Your task to perform on an android device: turn on bluetooth scan Image 0: 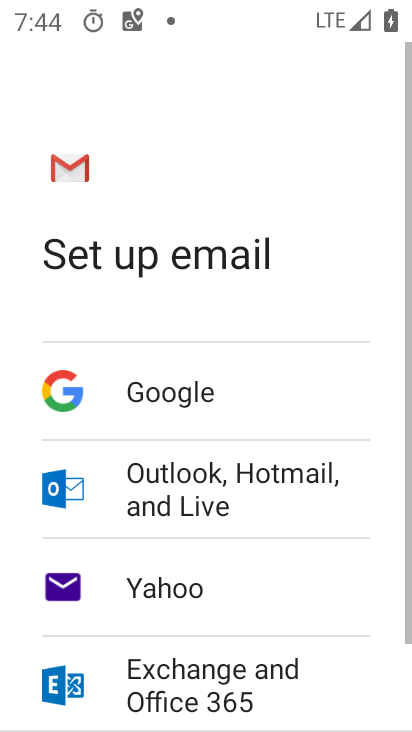
Step 0: press home button
Your task to perform on an android device: turn on bluetooth scan Image 1: 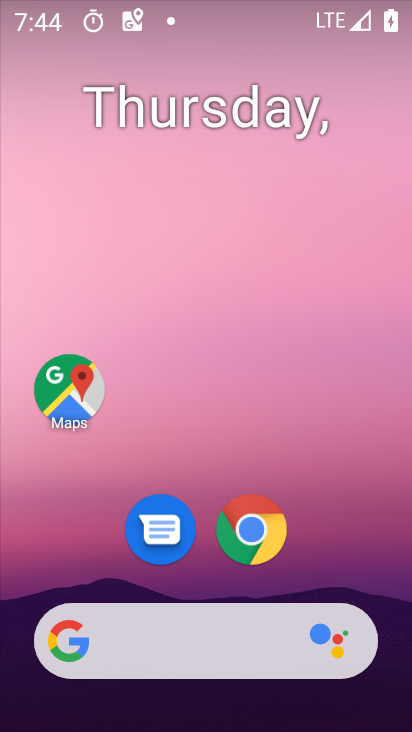
Step 1: drag from (372, 571) to (373, 136)
Your task to perform on an android device: turn on bluetooth scan Image 2: 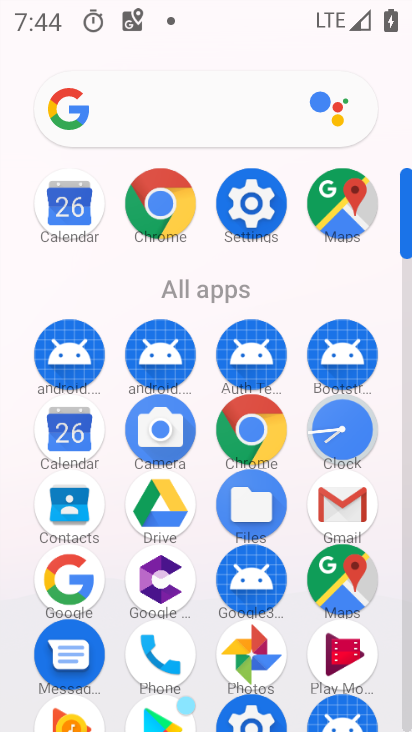
Step 2: click (257, 222)
Your task to perform on an android device: turn on bluetooth scan Image 3: 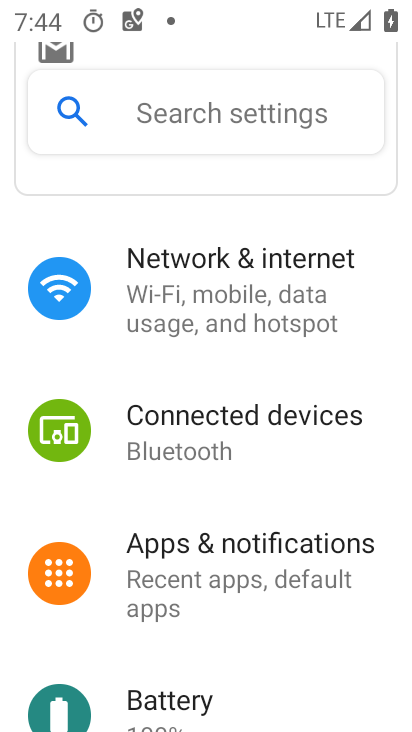
Step 3: drag from (307, 468) to (339, 308)
Your task to perform on an android device: turn on bluetooth scan Image 4: 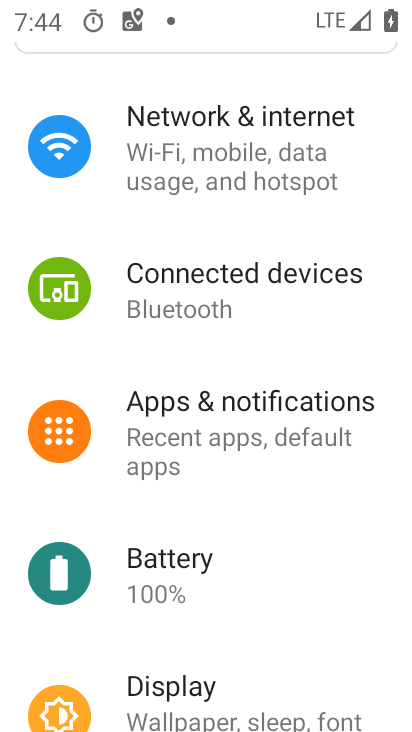
Step 4: drag from (343, 418) to (354, 274)
Your task to perform on an android device: turn on bluetooth scan Image 5: 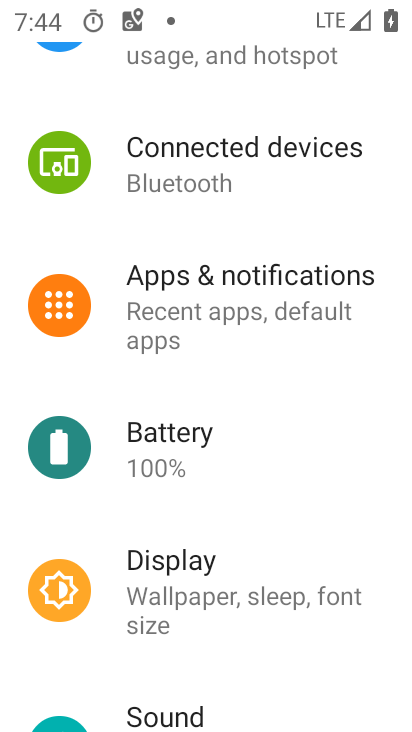
Step 5: drag from (341, 475) to (333, 258)
Your task to perform on an android device: turn on bluetooth scan Image 6: 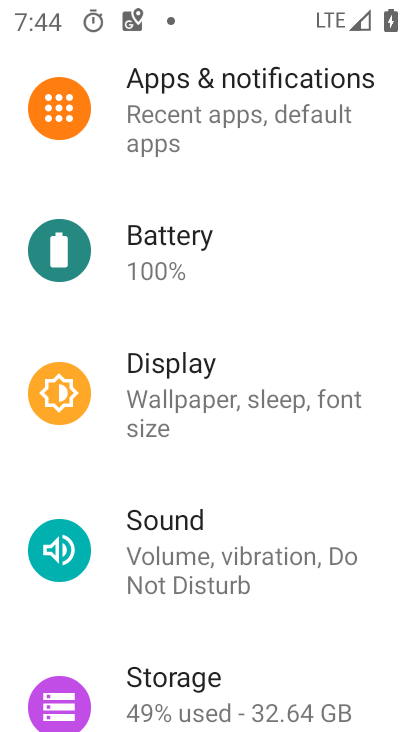
Step 6: drag from (339, 553) to (344, 419)
Your task to perform on an android device: turn on bluetooth scan Image 7: 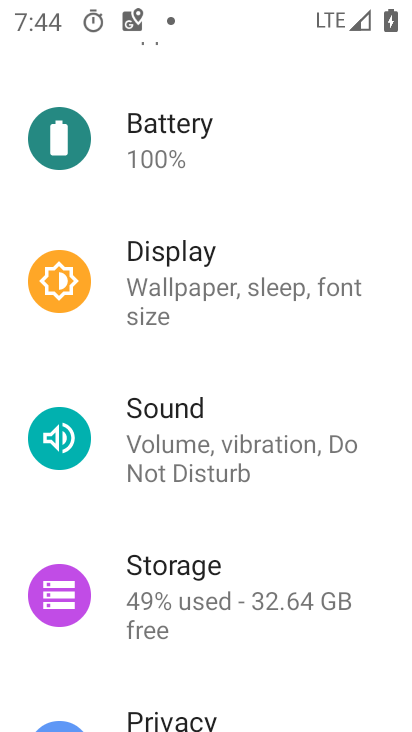
Step 7: drag from (341, 631) to (353, 415)
Your task to perform on an android device: turn on bluetooth scan Image 8: 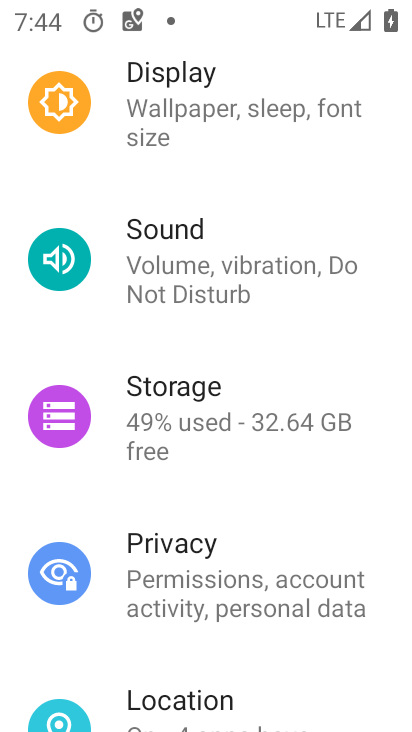
Step 8: drag from (368, 508) to (375, 373)
Your task to perform on an android device: turn on bluetooth scan Image 9: 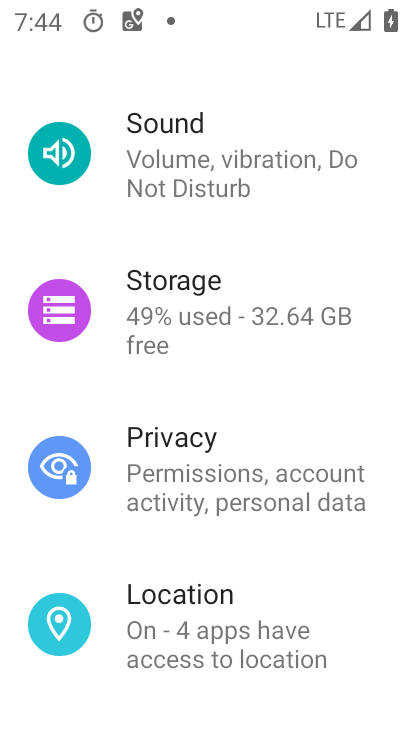
Step 9: drag from (371, 552) to (370, 377)
Your task to perform on an android device: turn on bluetooth scan Image 10: 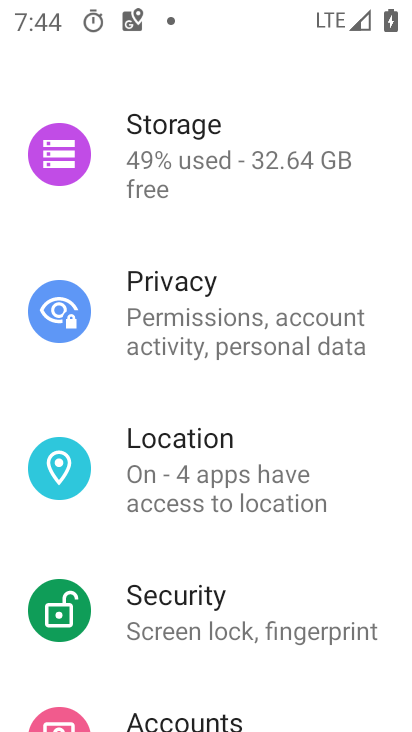
Step 10: drag from (361, 569) to (368, 398)
Your task to perform on an android device: turn on bluetooth scan Image 11: 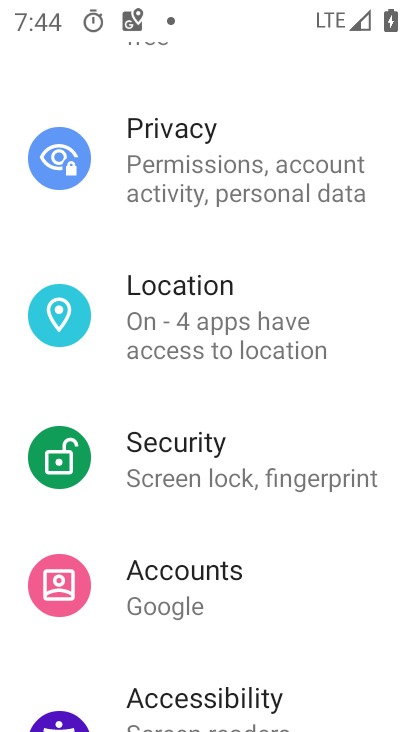
Step 11: click (269, 341)
Your task to perform on an android device: turn on bluetooth scan Image 12: 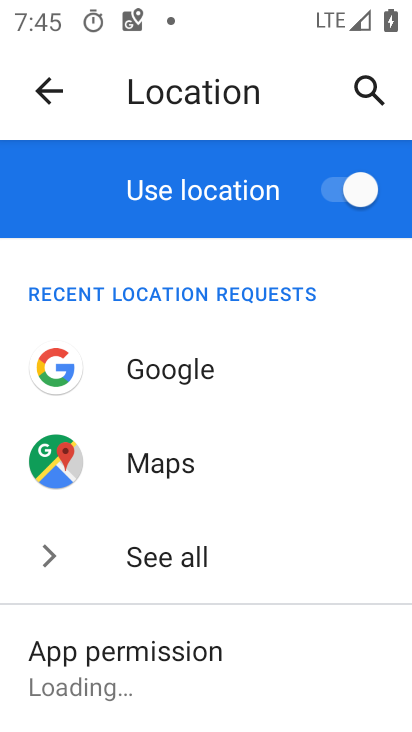
Step 12: drag from (291, 545) to (297, 411)
Your task to perform on an android device: turn on bluetooth scan Image 13: 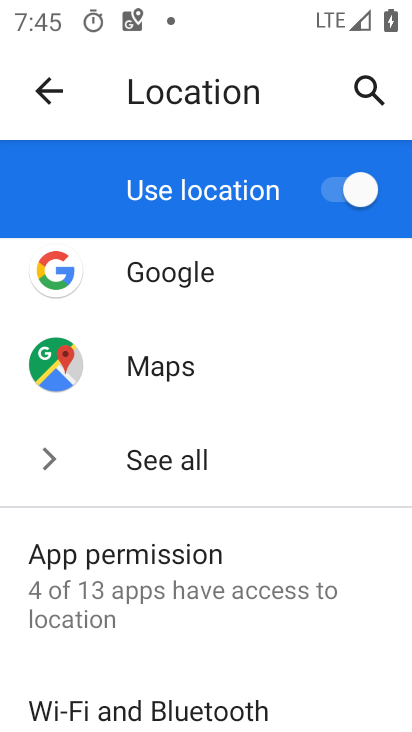
Step 13: drag from (313, 611) to (321, 463)
Your task to perform on an android device: turn on bluetooth scan Image 14: 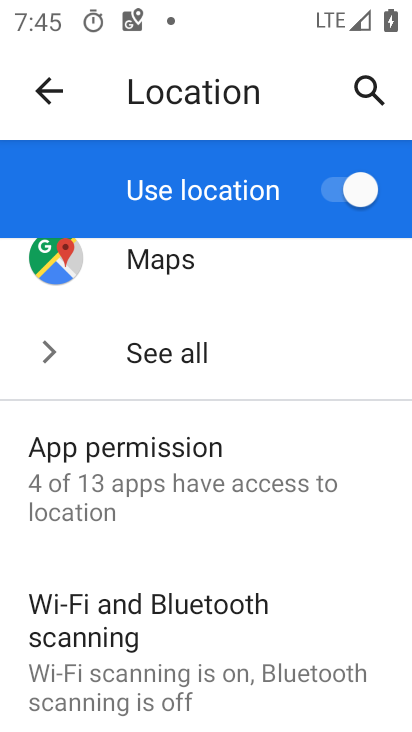
Step 14: drag from (323, 625) to (324, 453)
Your task to perform on an android device: turn on bluetooth scan Image 15: 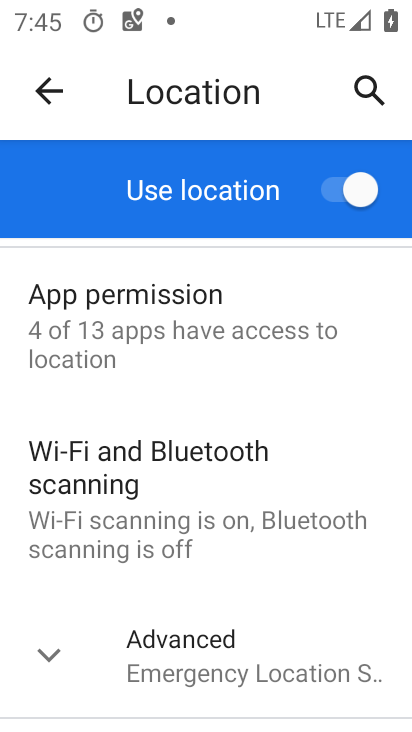
Step 15: click (225, 487)
Your task to perform on an android device: turn on bluetooth scan Image 16: 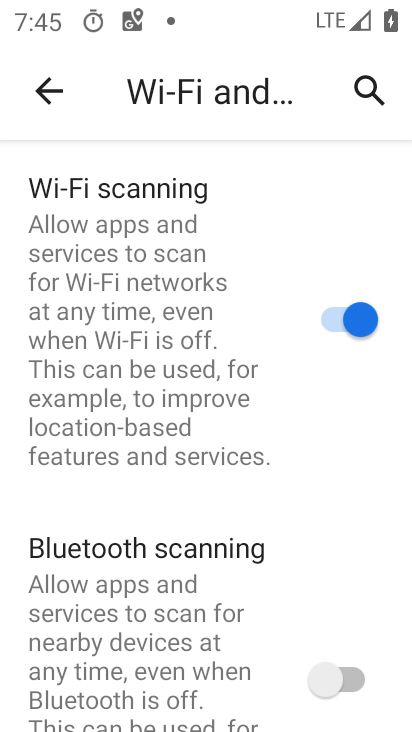
Step 16: drag from (279, 599) to (294, 415)
Your task to perform on an android device: turn on bluetooth scan Image 17: 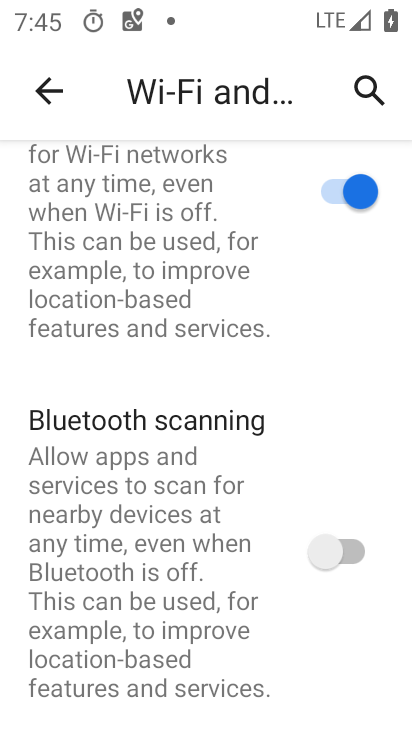
Step 17: click (314, 545)
Your task to perform on an android device: turn on bluetooth scan Image 18: 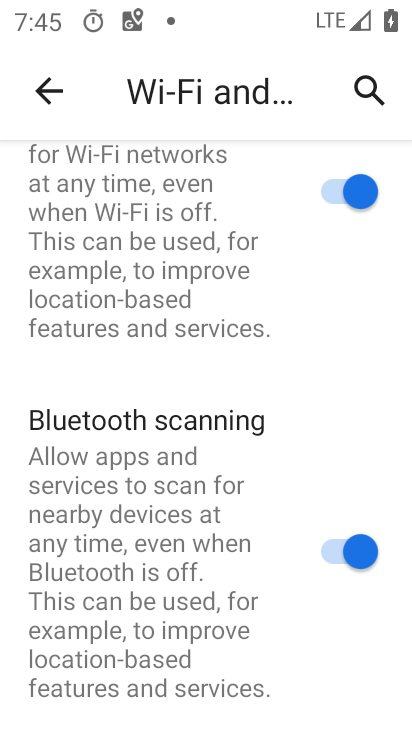
Step 18: task complete